Your task to perform on an android device: Open Wikipedia Image 0: 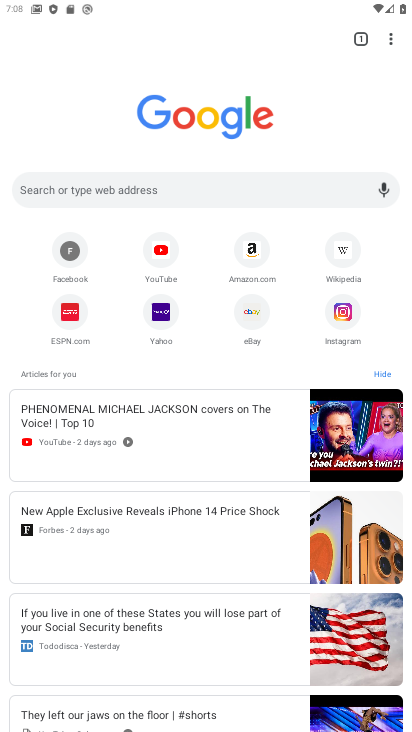
Step 0: press home button
Your task to perform on an android device: Open Wikipedia Image 1: 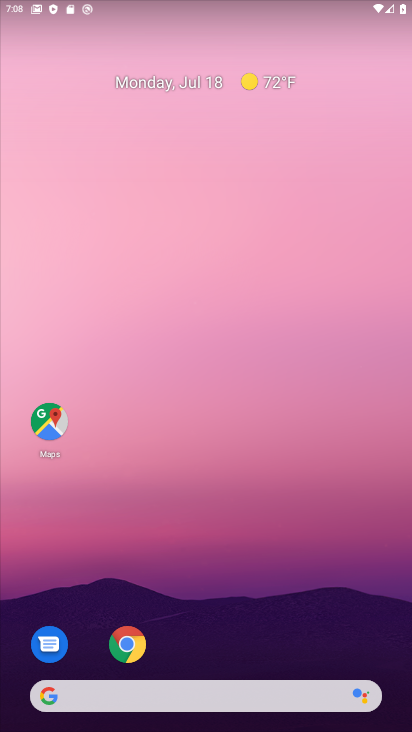
Step 1: drag from (307, 617) to (166, 29)
Your task to perform on an android device: Open Wikipedia Image 2: 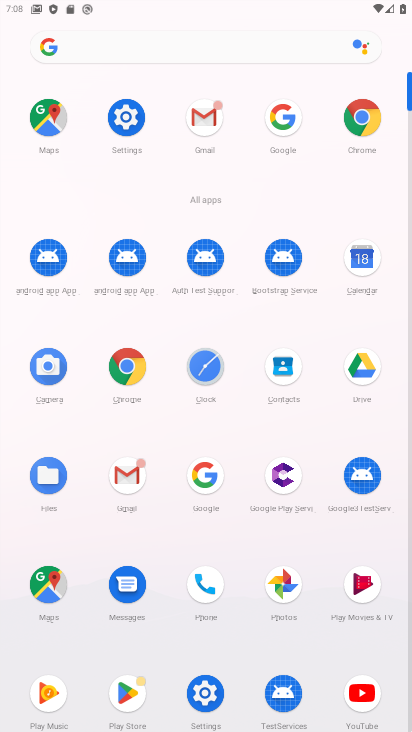
Step 2: click (211, 480)
Your task to perform on an android device: Open Wikipedia Image 3: 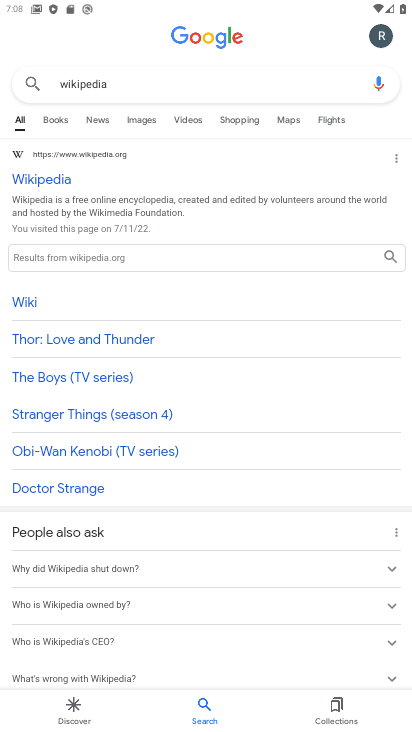
Step 3: task complete